Your task to perform on an android device: toggle data saver in the chrome app Image 0: 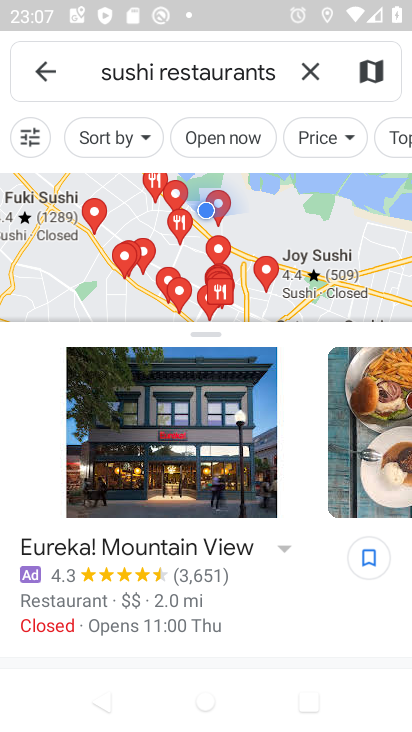
Step 0: press home button
Your task to perform on an android device: toggle data saver in the chrome app Image 1: 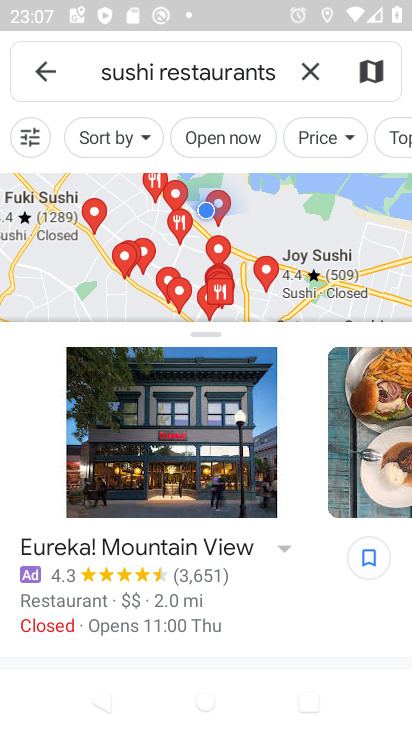
Step 1: press home button
Your task to perform on an android device: toggle data saver in the chrome app Image 2: 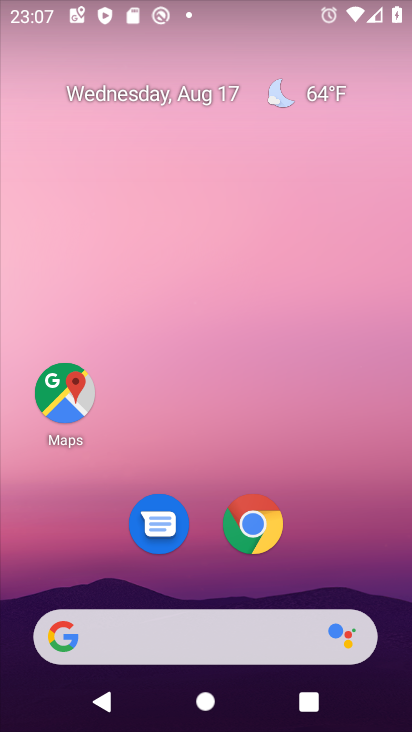
Step 2: click (259, 521)
Your task to perform on an android device: toggle data saver in the chrome app Image 3: 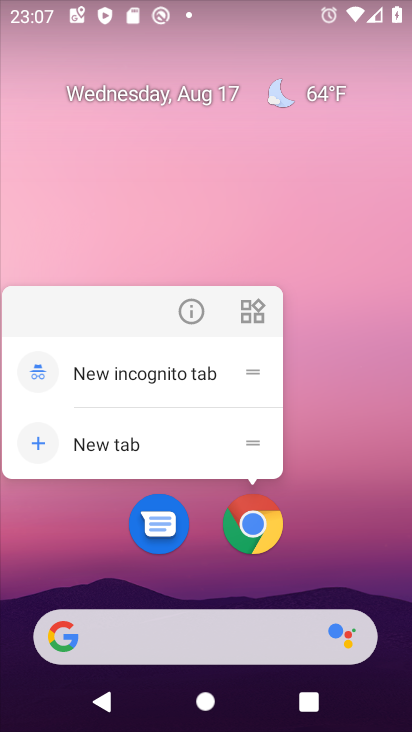
Step 3: click (259, 520)
Your task to perform on an android device: toggle data saver in the chrome app Image 4: 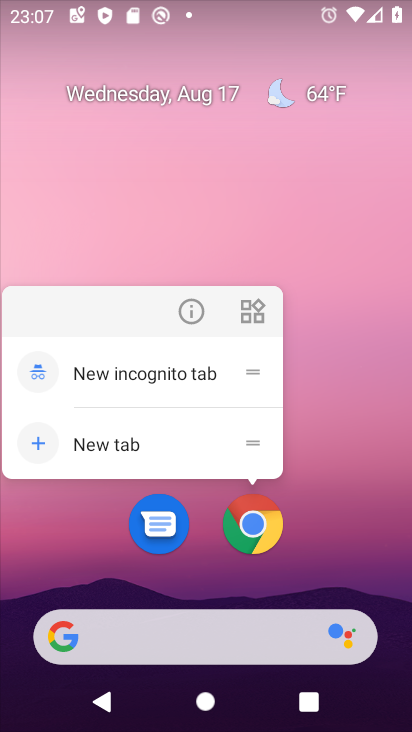
Step 4: click (257, 530)
Your task to perform on an android device: toggle data saver in the chrome app Image 5: 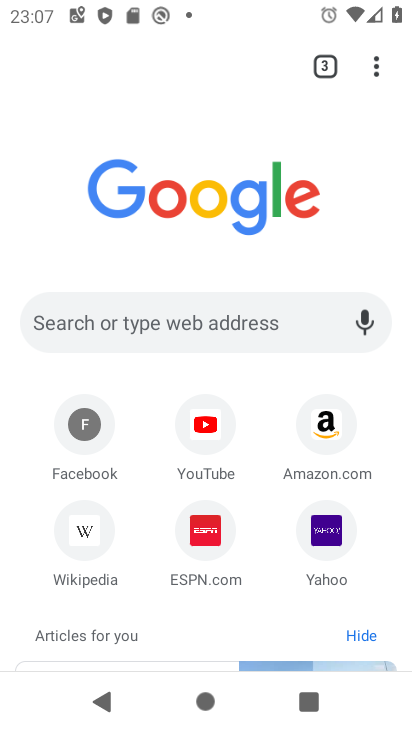
Step 5: click (374, 76)
Your task to perform on an android device: toggle data saver in the chrome app Image 6: 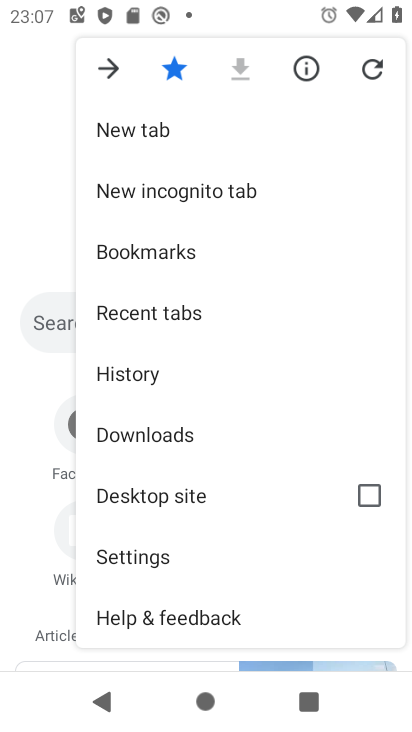
Step 6: click (180, 560)
Your task to perform on an android device: toggle data saver in the chrome app Image 7: 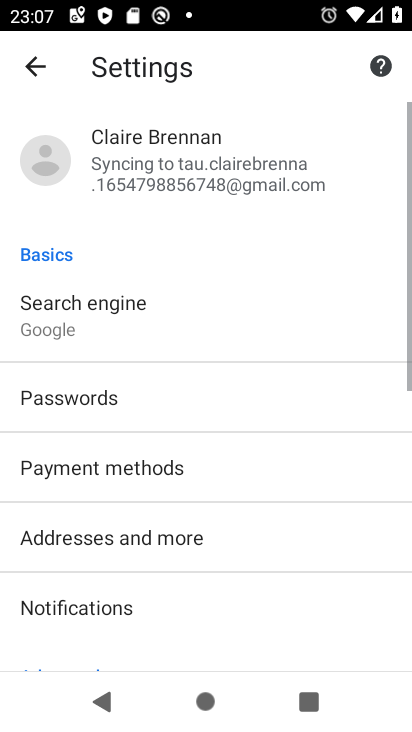
Step 7: drag from (180, 555) to (273, 19)
Your task to perform on an android device: toggle data saver in the chrome app Image 8: 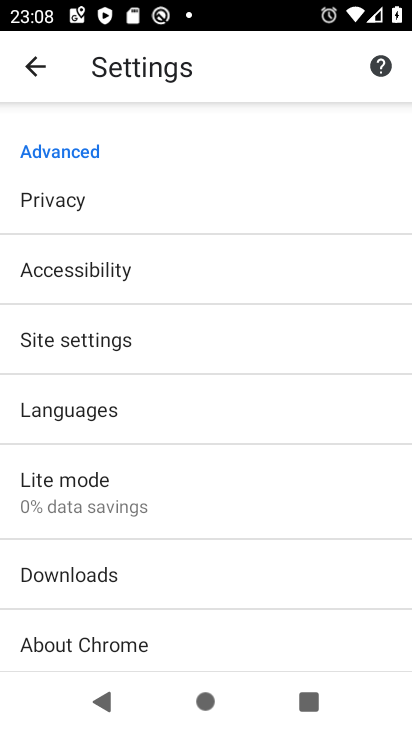
Step 8: click (160, 502)
Your task to perform on an android device: toggle data saver in the chrome app Image 9: 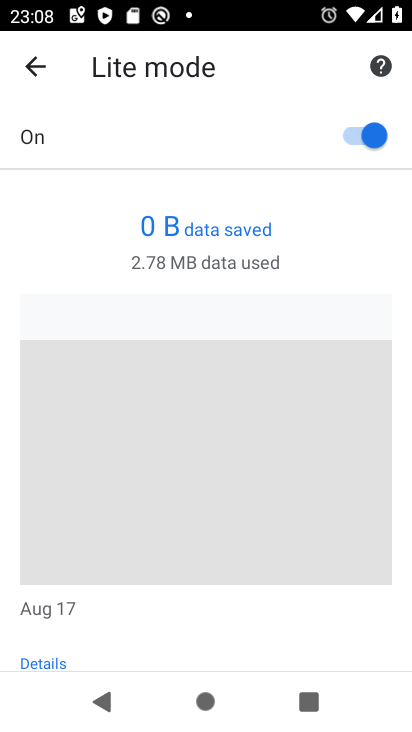
Step 9: click (366, 134)
Your task to perform on an android device: toggle data saver in the chrome app Image 10: 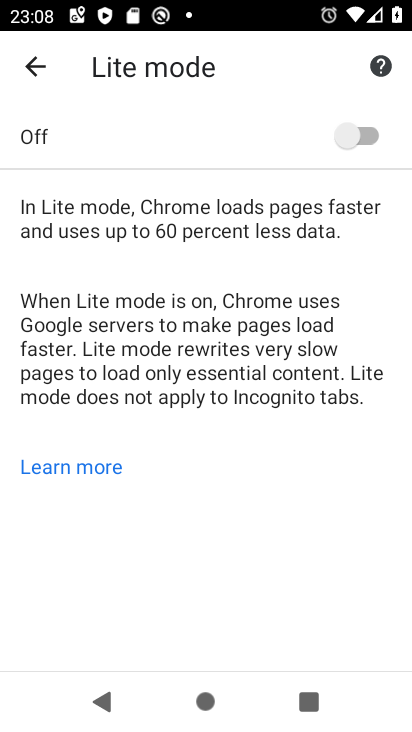
Step 10: task complete